Your task to perform on an android device: Go to privacy settings Image 0: 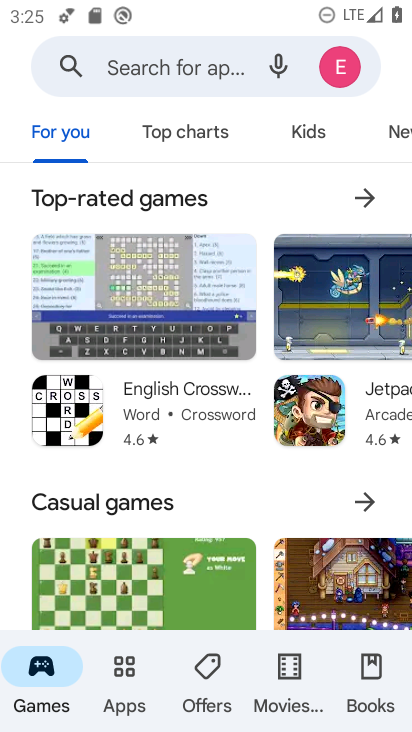
Step 0: press home button
Your task to perform on an android device: Go to privacy settings Image 1: 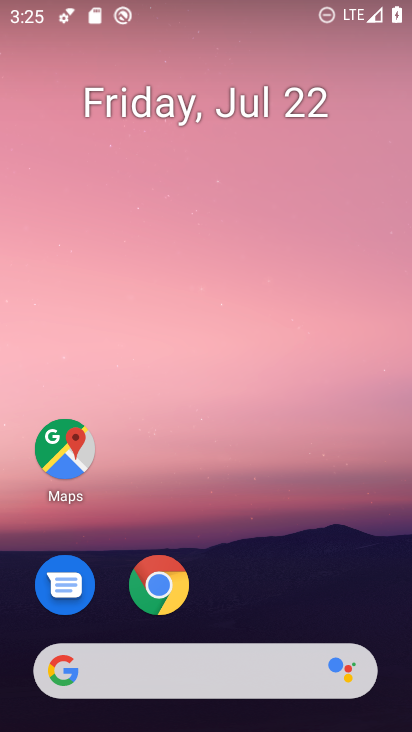
Step 1: drag from (269, 625) to (344, 37)
Your task to perform on an android device: Go to privacy settings Image 2: 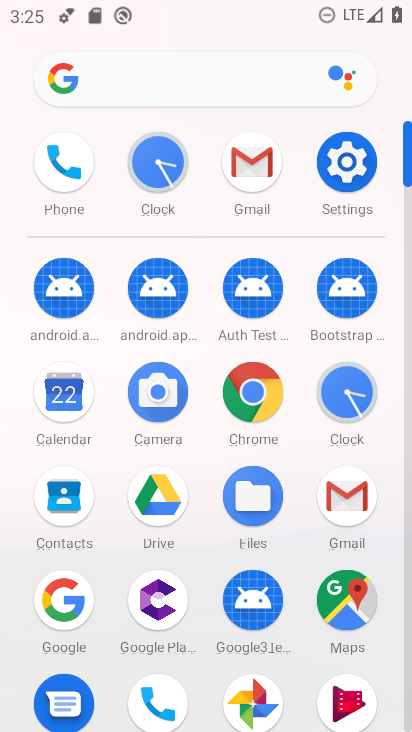
Step 2: click (351, 166)
Your task to perform on an android device: Go to privacy settings Image 3: 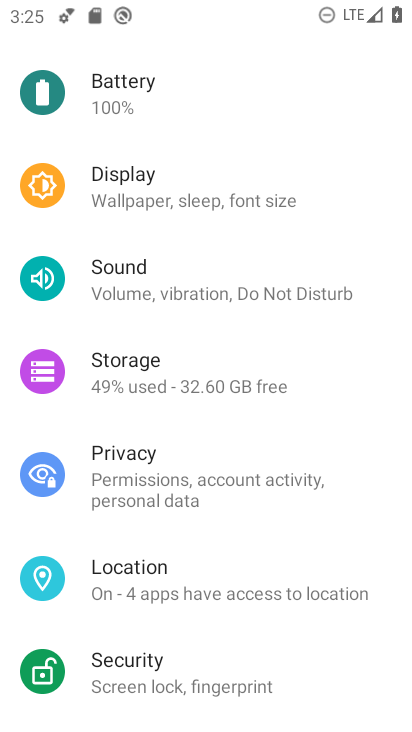
Step 3: click (204, 480)
Your task to perform on an android device: Go to privacy settings Image 4: 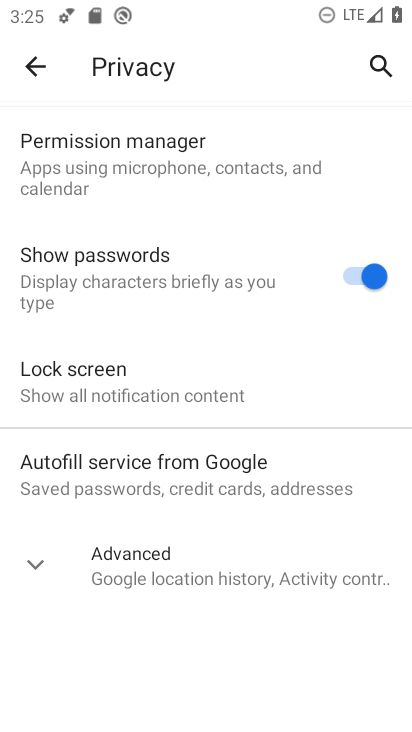
Step 4: click (32, 555)
Your task to perform on an android device: Go to privacy settings Image 5: 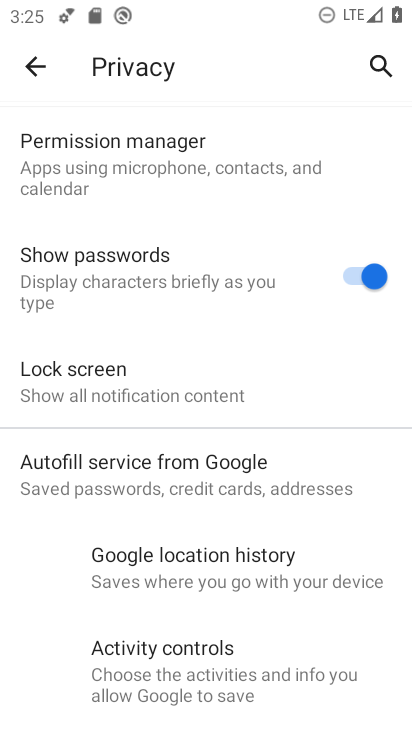
Step 5: task complete